Your task to perform on an android device: Open internet settings Image 0: 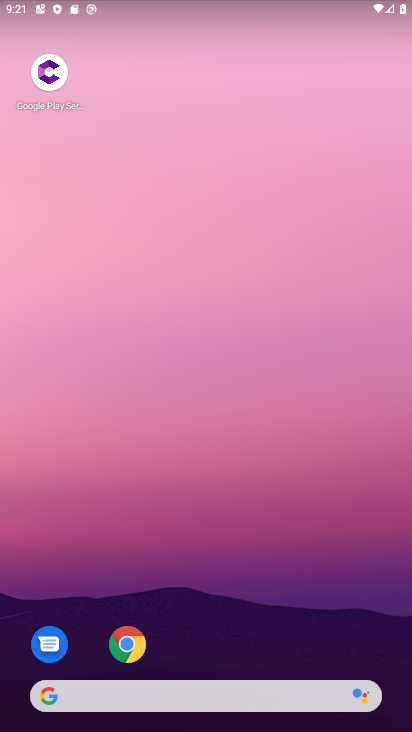
Step 0: drag from (301, 663) to (299, 148)
Your task to perform on an android device: Open internet settings Image 1: 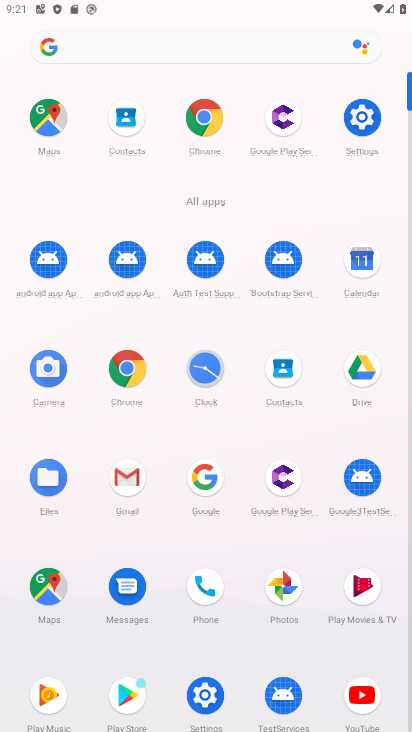
Step 1: click (356, 153)
Your task to perform on an android device: Open internet settings Image 2: 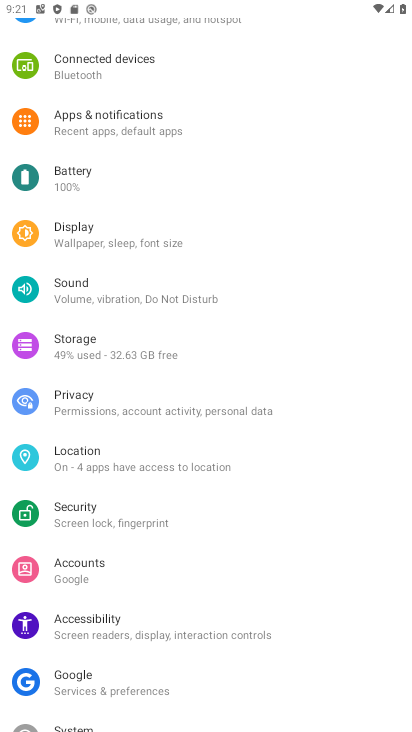
Step 2: drag from (174, 96) to (165, 601)
Your task to perform on an android device: Open internet settings Image 3: 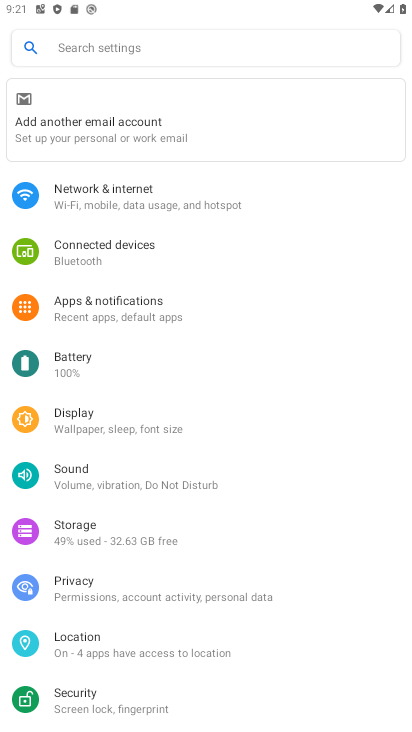
Step 3: click (160, 199)
Your task to perform on an android device: Open internet settings Image 4: 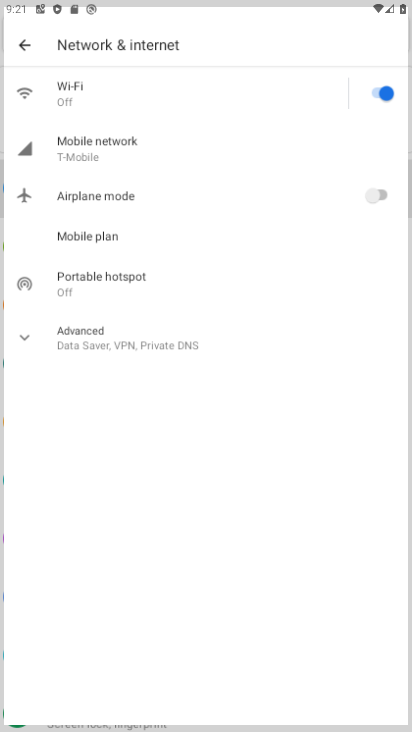
Step 4: task complete